Your task to perform on an android device: turn on notifications settings in the gmail app Image 0: 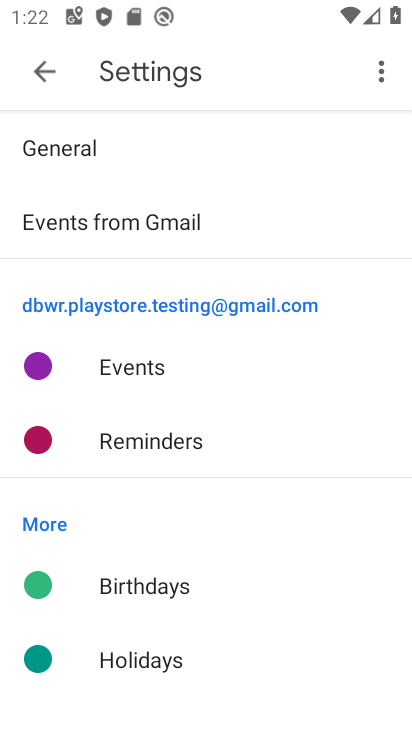
Step 0: press home button
Your task to perform on an android device: turn on notifications settings in the gmail app Image 1: 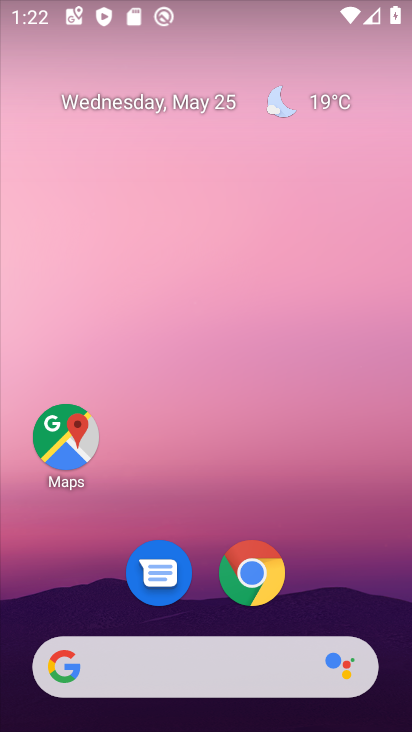
Step 1: drag from (379, 609) to (390, 70)
Your task to perform on an android device: turn on notifications settings in the gmail app Image 2: 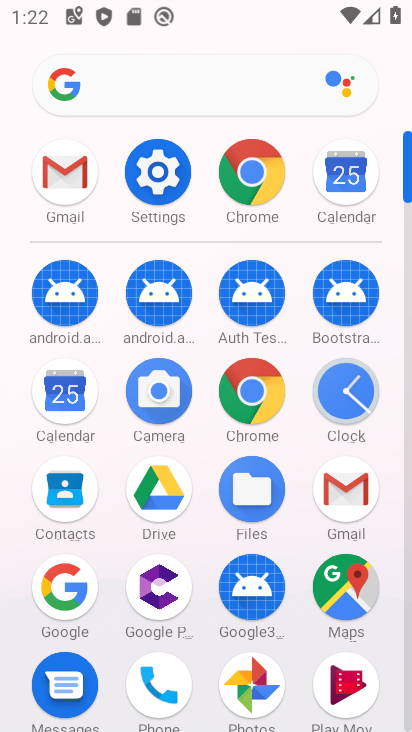
Step 2: click (404, 691)
Your task to perform on an android device: turn on notifications settings in the gmail app Image 3: 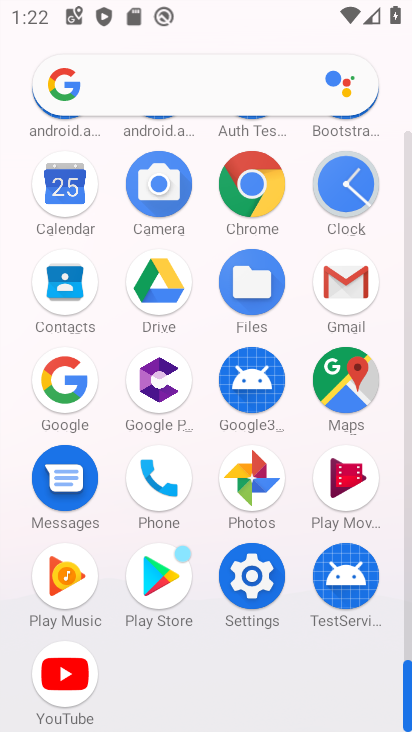
Step 3: click (345, 285)
Your task to perform on an android device: turn on notifications settings in the gmail app Image 4: 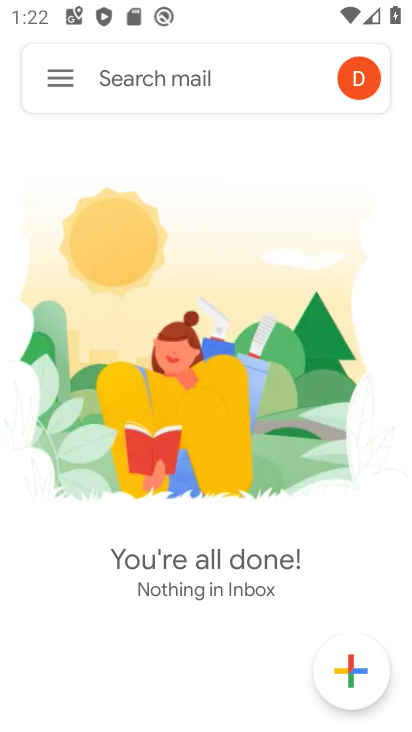
Step 4: click (61, 75)
Your task to perform on an android device: turn on notifications settings in the gmail app Image 5: 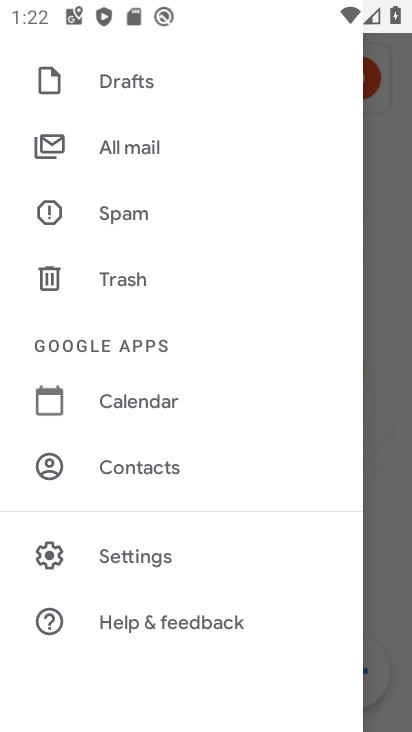
Step 5: click (145, 566)
Your task to perform on an android device: turn on notifications settings in the gmail app Image 6: 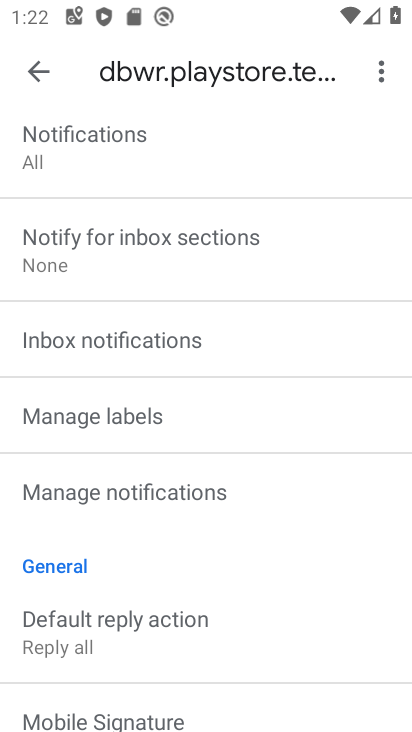
Step 6: click (156, 492)
Your task to perform on an android device: turn on notifications settings in the gmail app Image 7: 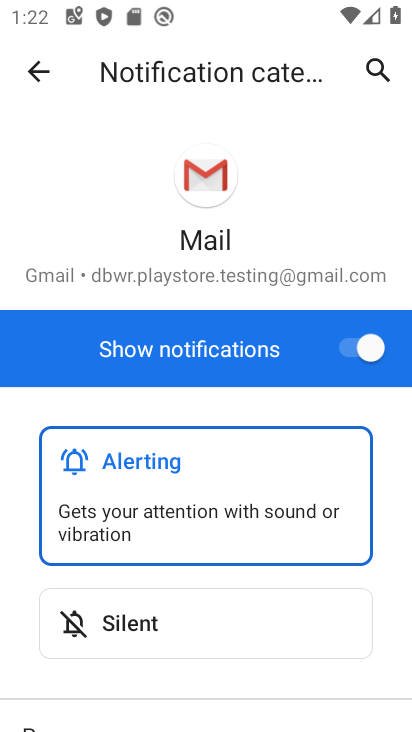
Step 7: task complete